Your task to perform on an android device: Open the web browser Image 0: 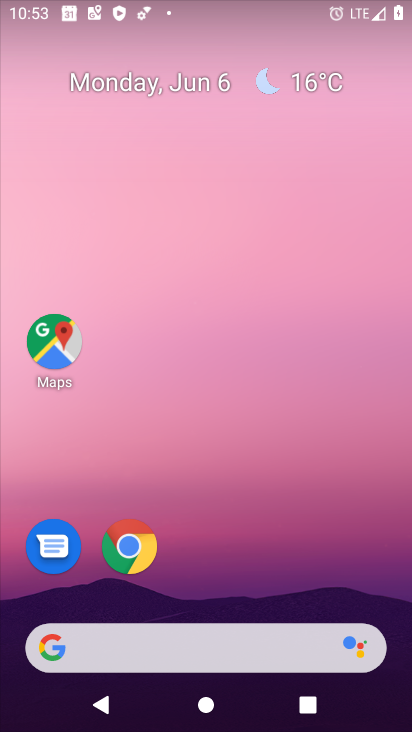
Step 0: click (141, 547)
Your task to perform on an android device: Open the web browser Image 1: 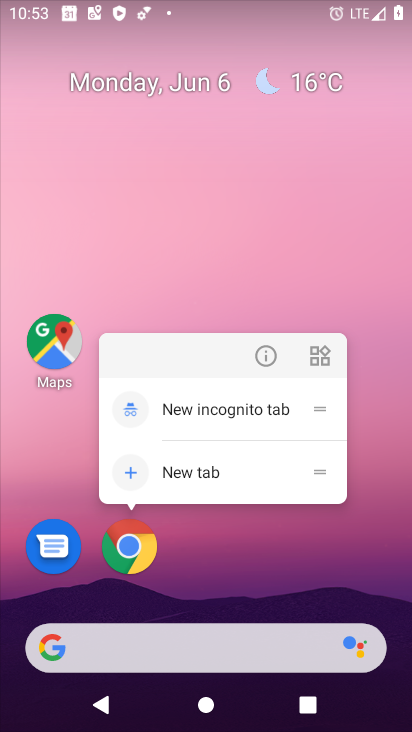
Step 1: click (126, 534)
Your task to perform on an android device: Open the web browser Image 2: 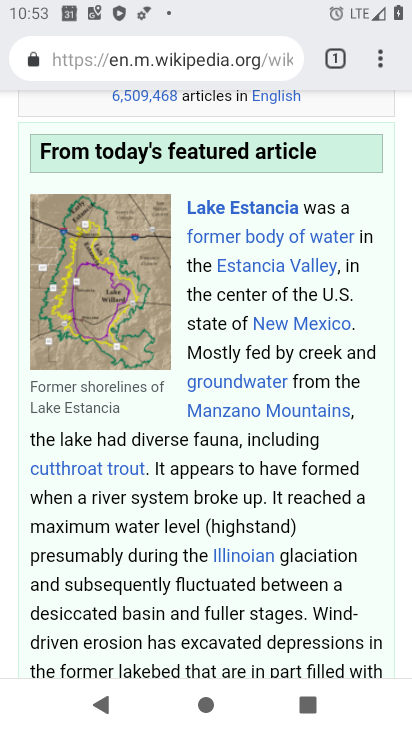
Step 2: task complete